Your task to perform on an android device: Is it going to rain tomorrow? Image 0: 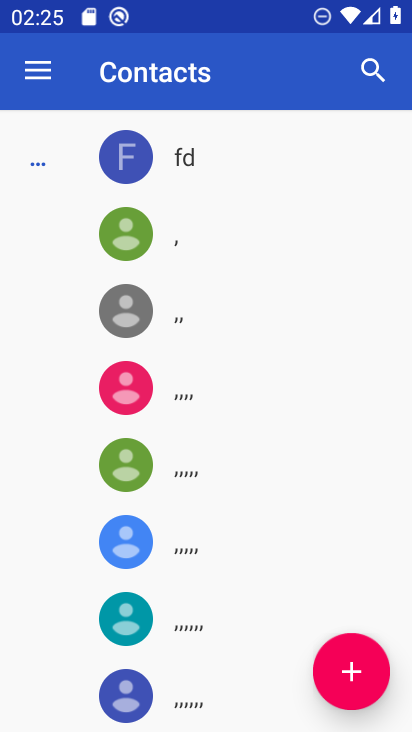
Step 0: press home button
Your task to perform on an android device: Is it going to rain tomorrow? Image 1: 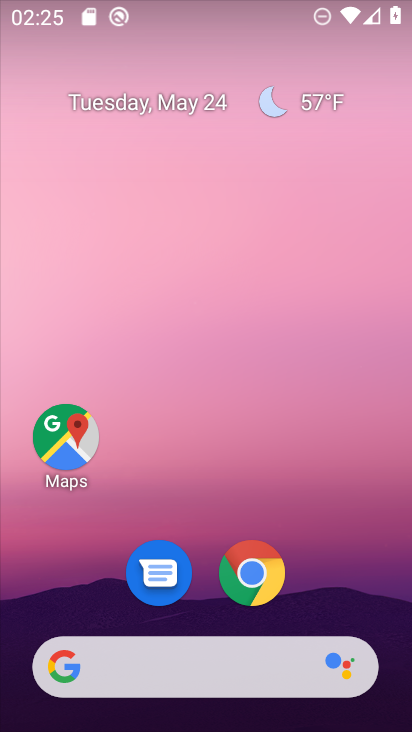
Step 1: drag from (354, 576) to (333, 124)
Your task to perform on an android device: Is it going to rain tomorrow? Image 2: 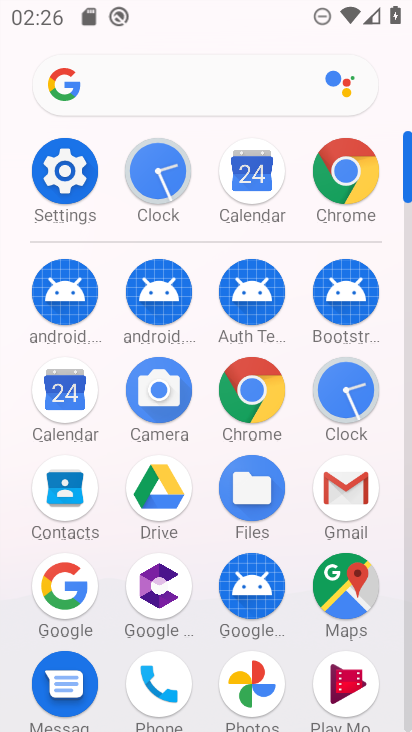
Step 2: click (269, 394)
Your task to perform on an android device: Is it going to rain tomorrow? Image 3: 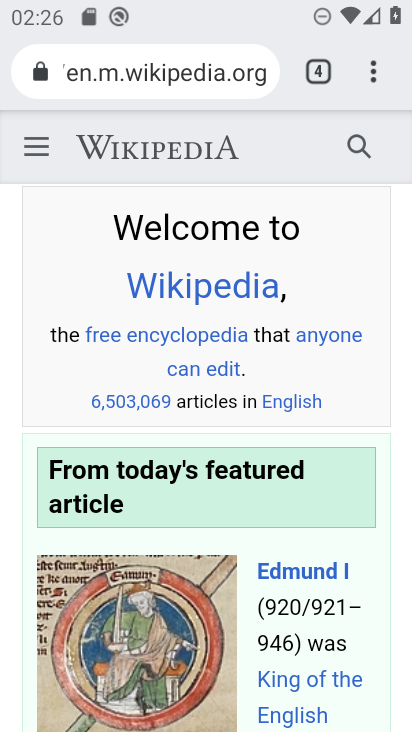
Step 3: click (206, 78)
Your task to perform on an android device: Is it going to rain tomorrow? Image 4: 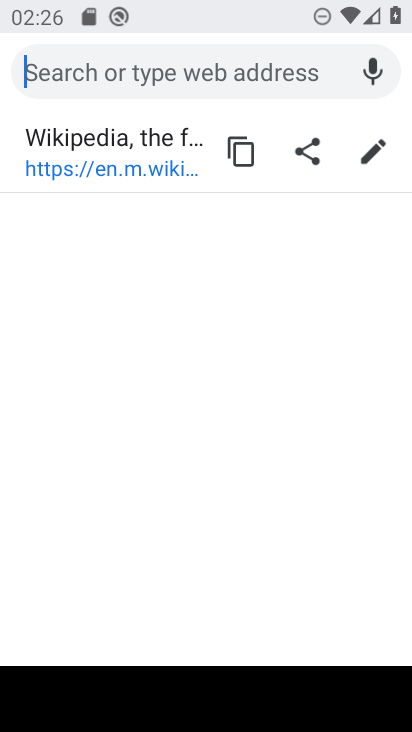
Step 4: type "is it going to rain tomorrow"
Your task to perform on an android device: Is it going to rain tomorrow? Image 5: 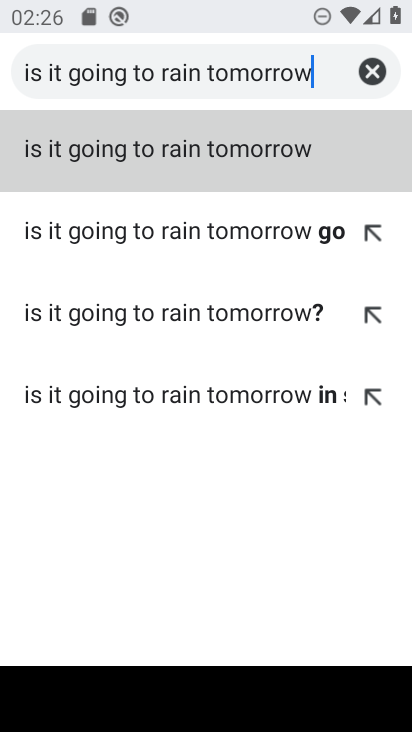
Step 5: click (171, 147)
Your task to perform on an android device: Is it going to rain tomorrow? Image 6: 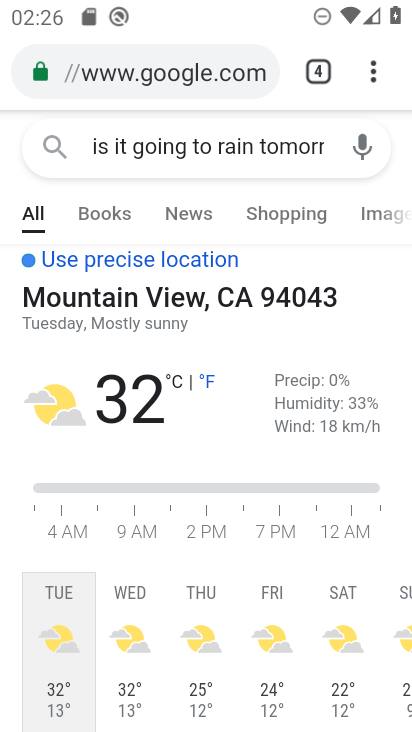
Step 6: task complete